Your task to perform on an android device: turn off smart reply in the gmail app Image 0: 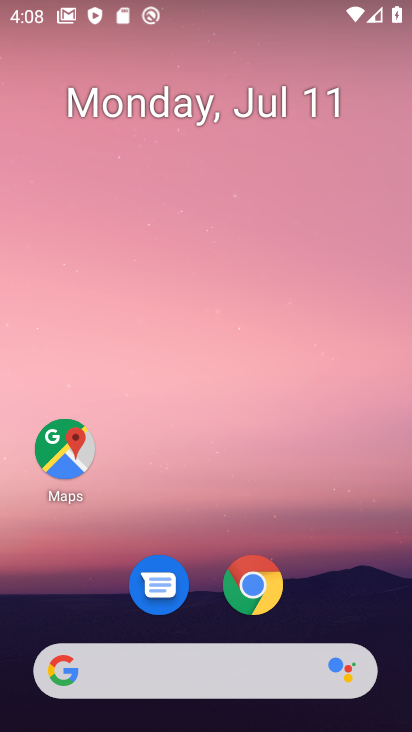
Step 0: drag from (195, 483) to (249, 35)
Your task to perform on an android device: turn off smart reply in the gmail app Image 1: 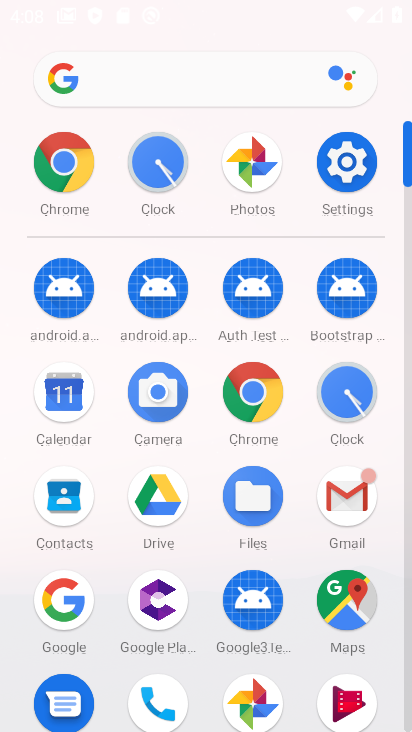
Step 1: click (349, 487)
Your task to perform on an android device: turn off smart reply in the gmail app Image 2: 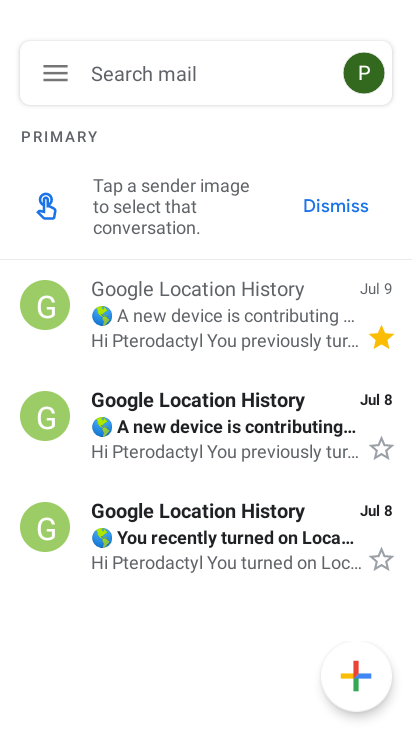
Step 2: click (56, 69)
Your task to perform on an android device: turn off smart reply in the gmail app Image 3: 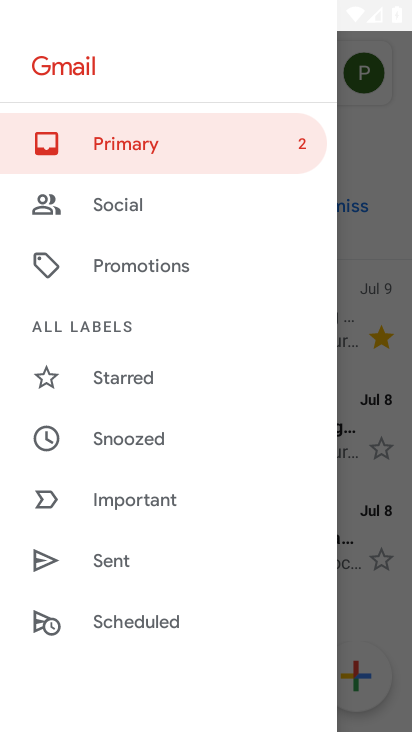
Step 3: drag from (192, 557) to (230, 4)
Your task to perform on an android device: turn off smart reply in the gmail app Image 4: 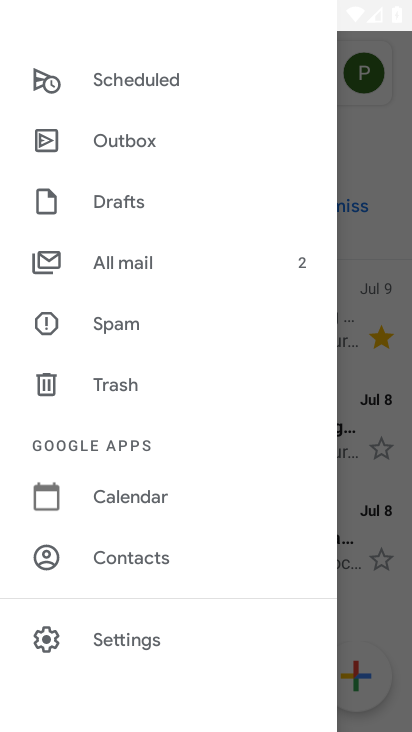
Step 4: click (151, 646)
Your task to perform on an android device: turn off smart reply in the gmail app Image 5: 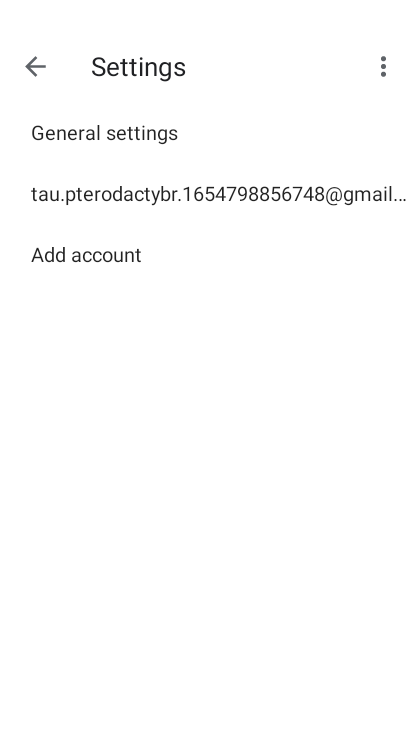
Step 5: click (239, 183)
Your task to perform on an android device: turn off smart reply in the gmail app Image 6: 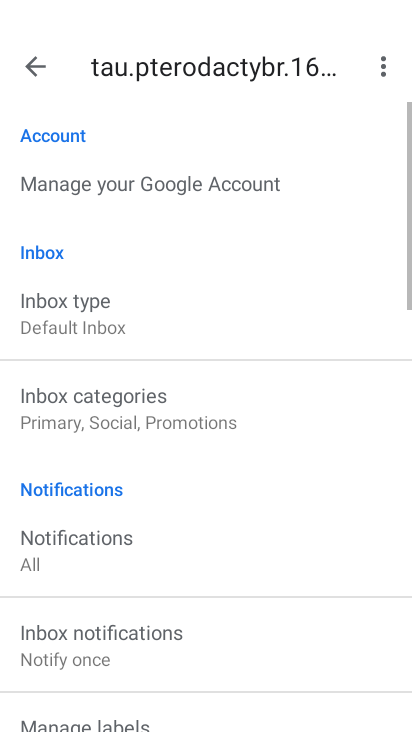
Step 6: task complete